Your task to perform on an android device: turn on the 24-hour format for clock Image 0: 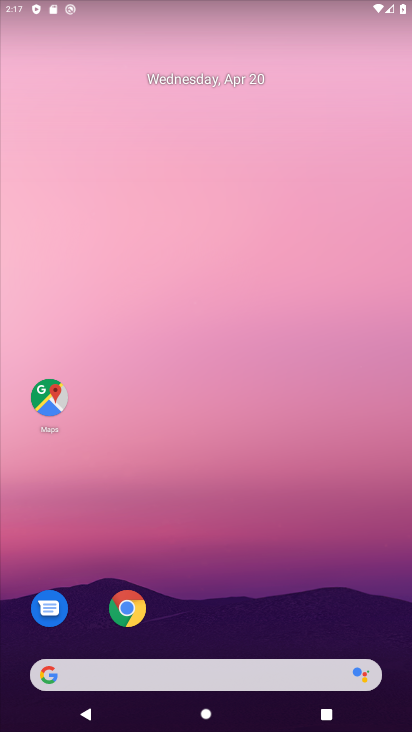
Step 0: drag from (327, 395) to (306, 133)
Your task to perform on an android device: turn on the 24-hour format for clock Image 1: 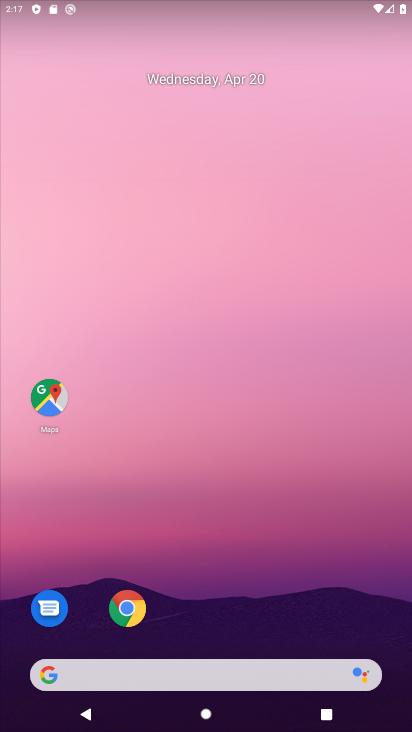
Step 1: drag from (354, 592) to (358, 118)
Your task to perform on an android device: turn on the 24-hour format for clock Image 2: 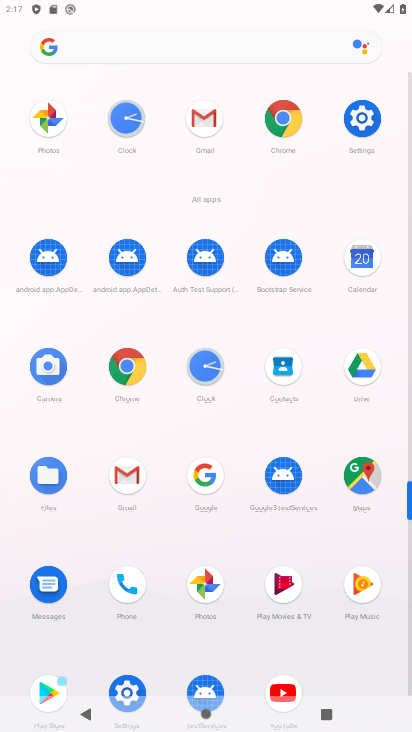
Step 2: click (203, 372)
Your task to perform on an android device: turn on the 24-hour format for clock Image 3: 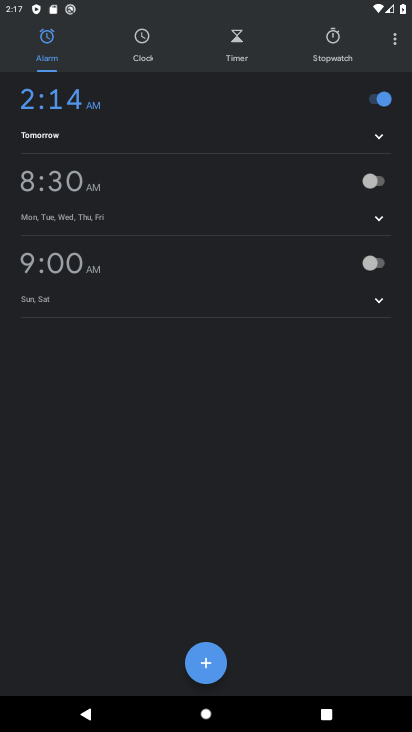
Step 3: click (391, 43)
Your task to perform on an android device: turn on the 24-hour format for clock Image 4: 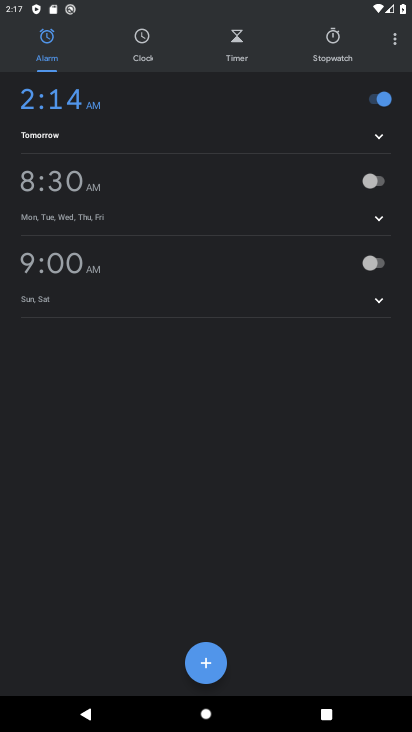
Step 4: click (394, 41)
Your task to perform on an android device: turn on the 24-hour format for clock Image 5: 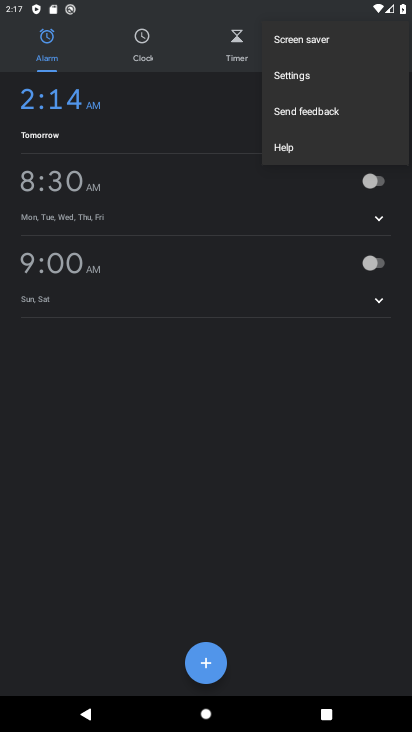
Step 5: click (309, 81)
Your task to perform on an android device: turn on the 24-hour format for clock Image 6: 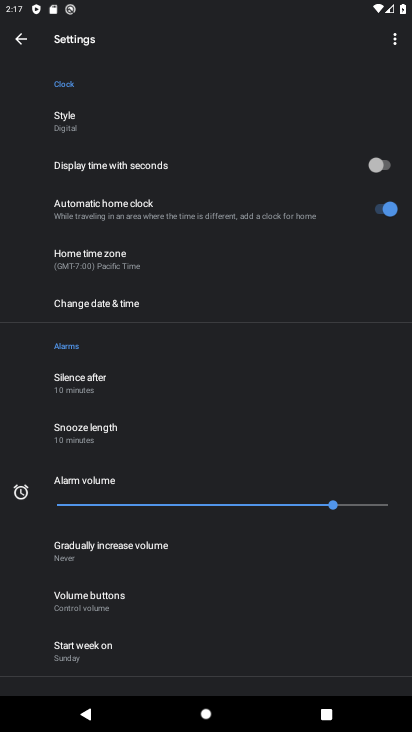
Step 6: click (119, 295)
Your task to perform on an android device: turn on the 24-hour format for clock Image 7: 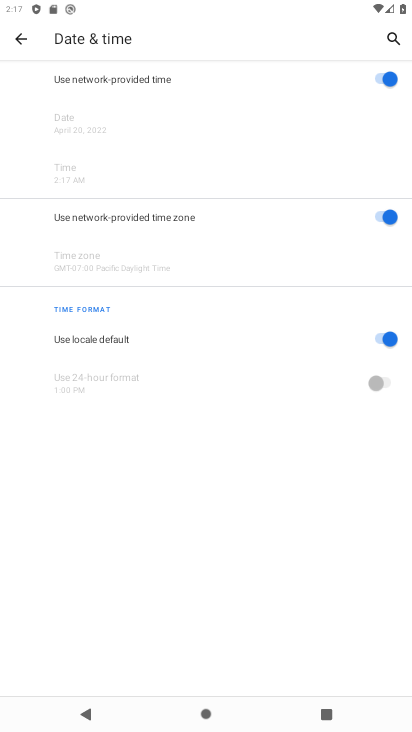
Step 7: click (383, 338)
Your task to perform on an android device: turn on the 24-hour format for clock Image 8: 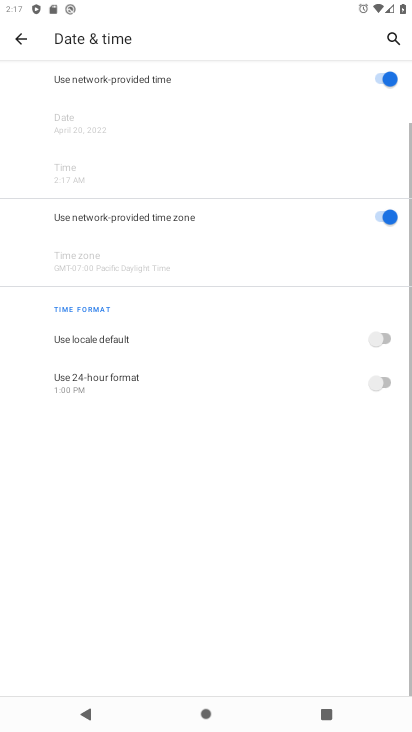
Step 8: click (385, 382)
Your task to perform on an android device: turn on the 24-hour format for clock Image 9: 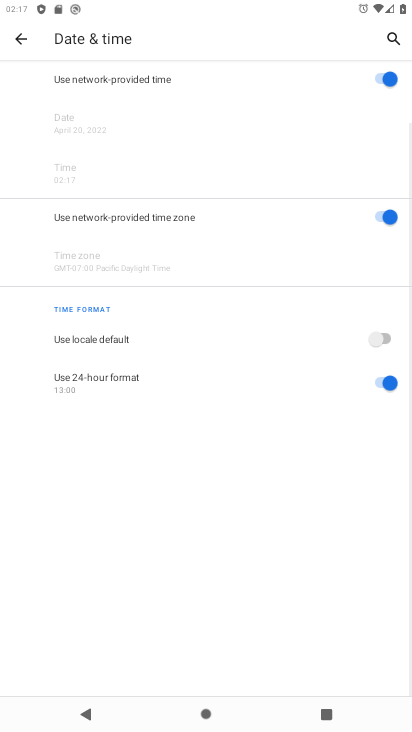
Step 9: task complete